Your task to perform on an android device: see sites visited before in the chrome app Image 0: 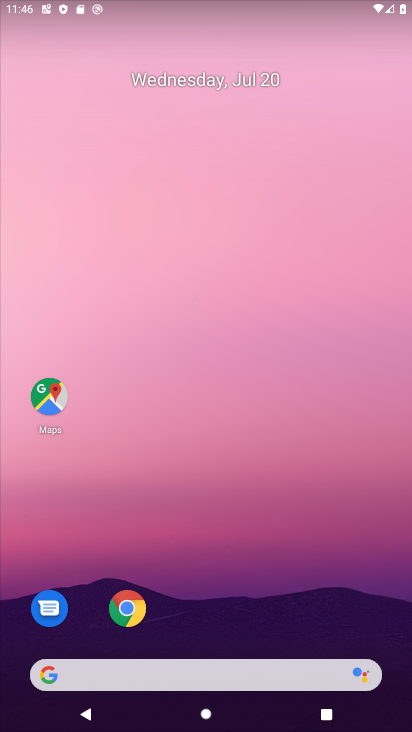
Step 0: drag from (291, 597) to (54, 79)
Your task to perform on an android device: see sites visited before in the chrome app Image 1: 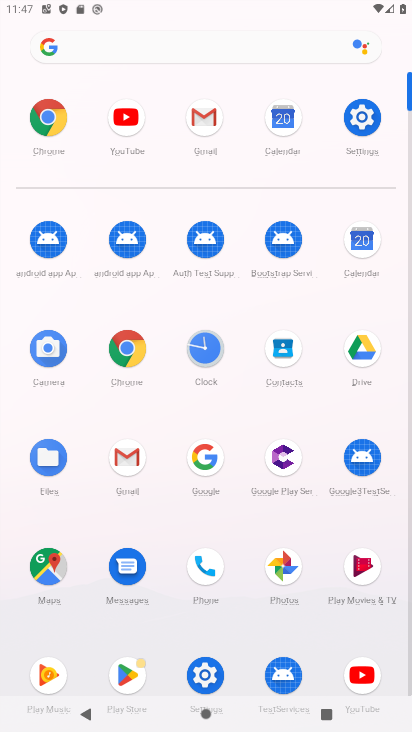
Step 1: click (125, 356)
Your task to perform on an android device: see sites visited before in the chrome app Image 2: 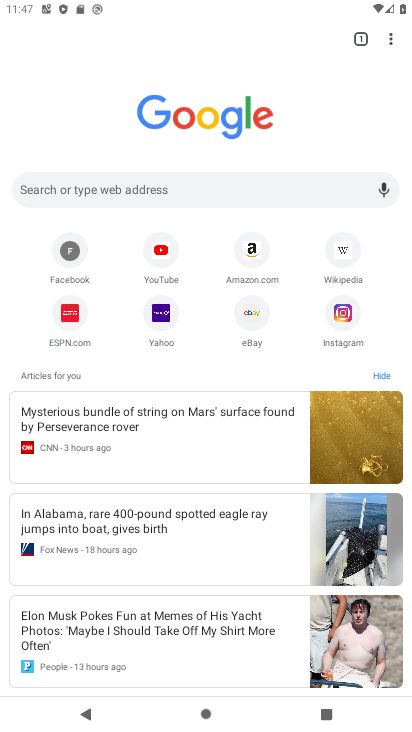
Step 2: task complete